Your task to perform on an android device: Open the calendar app, open the side menu, and click the "Day" option Image 0: 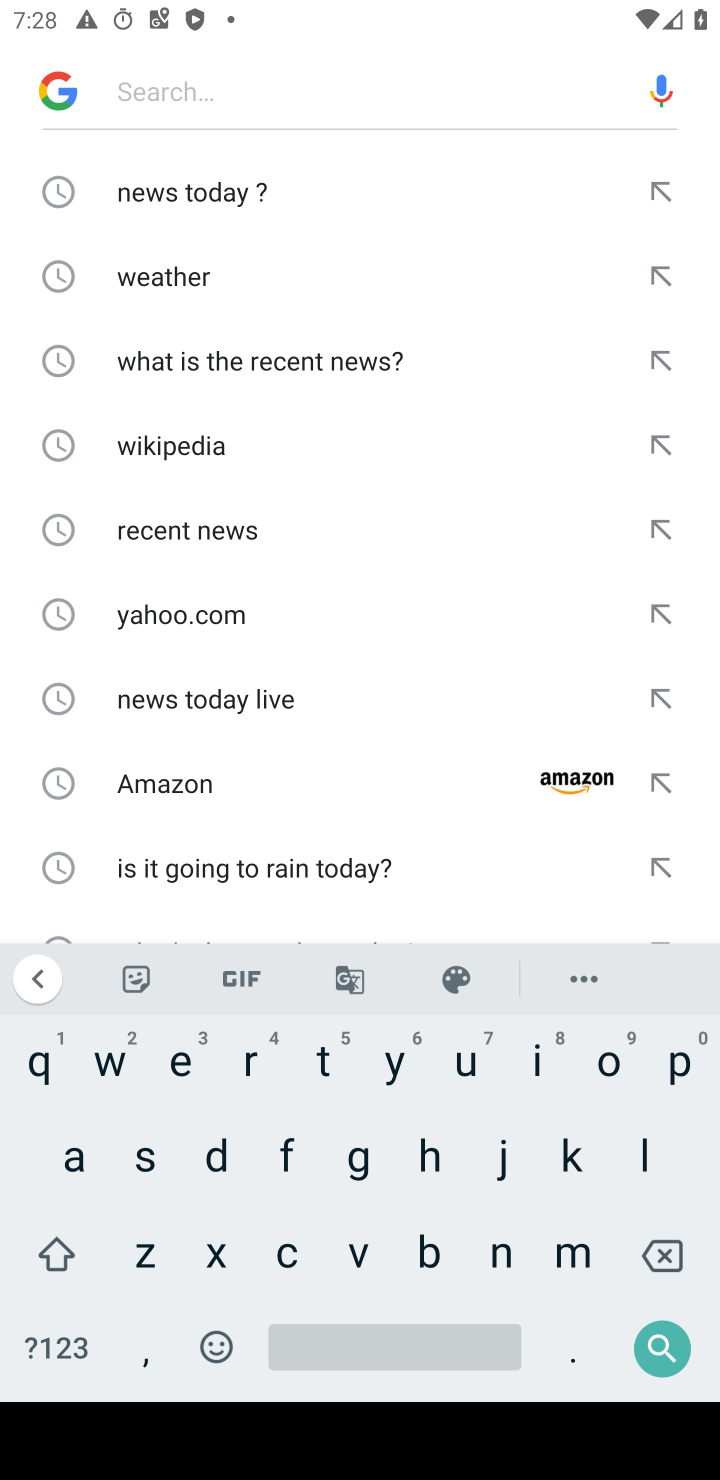
Step 0: press home button
Your task to perform on an android device: Open the calendar app, open the side menu, and click the "Day" option Image 1: 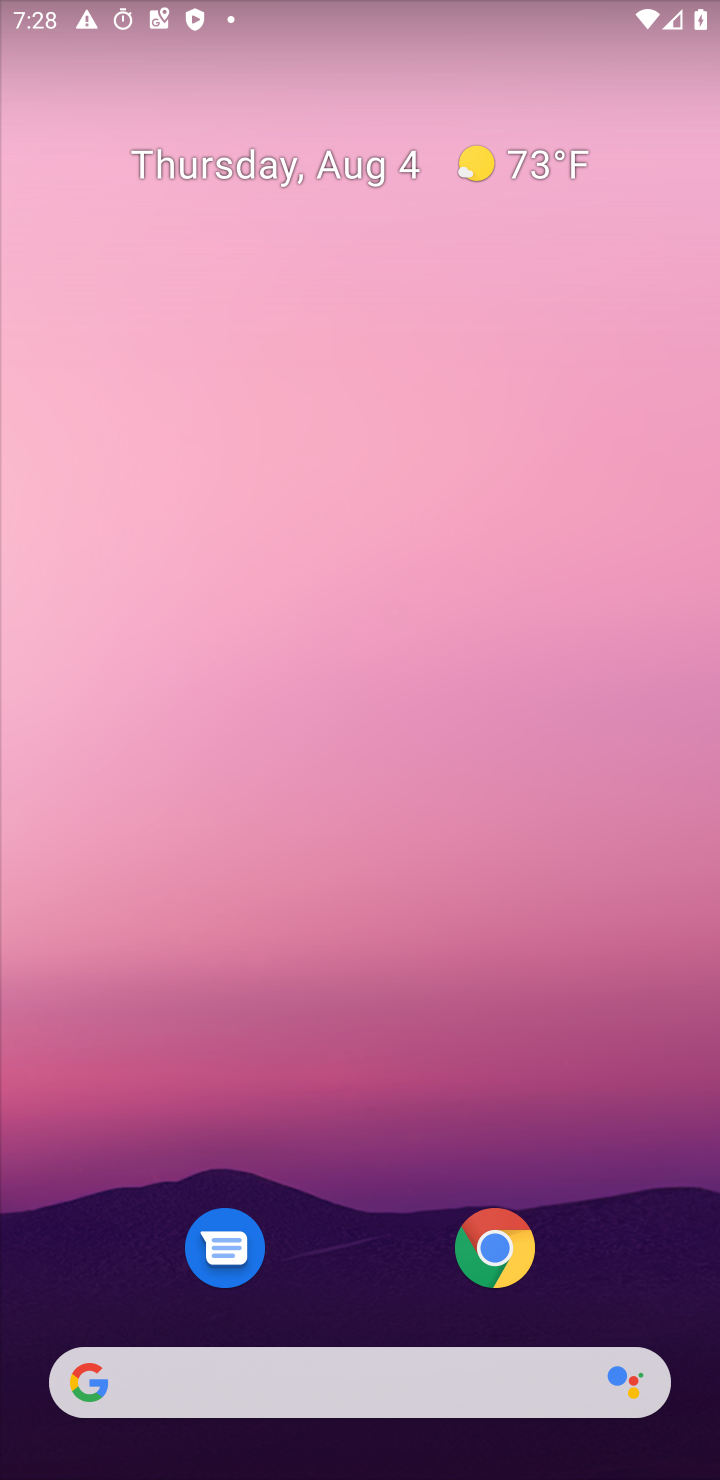
Step 1: drag from (332, 1084) to (334, 351)
Your task to perform on an android device: Open the calendar app, open the side menu, and click the "Day" option Image 2: 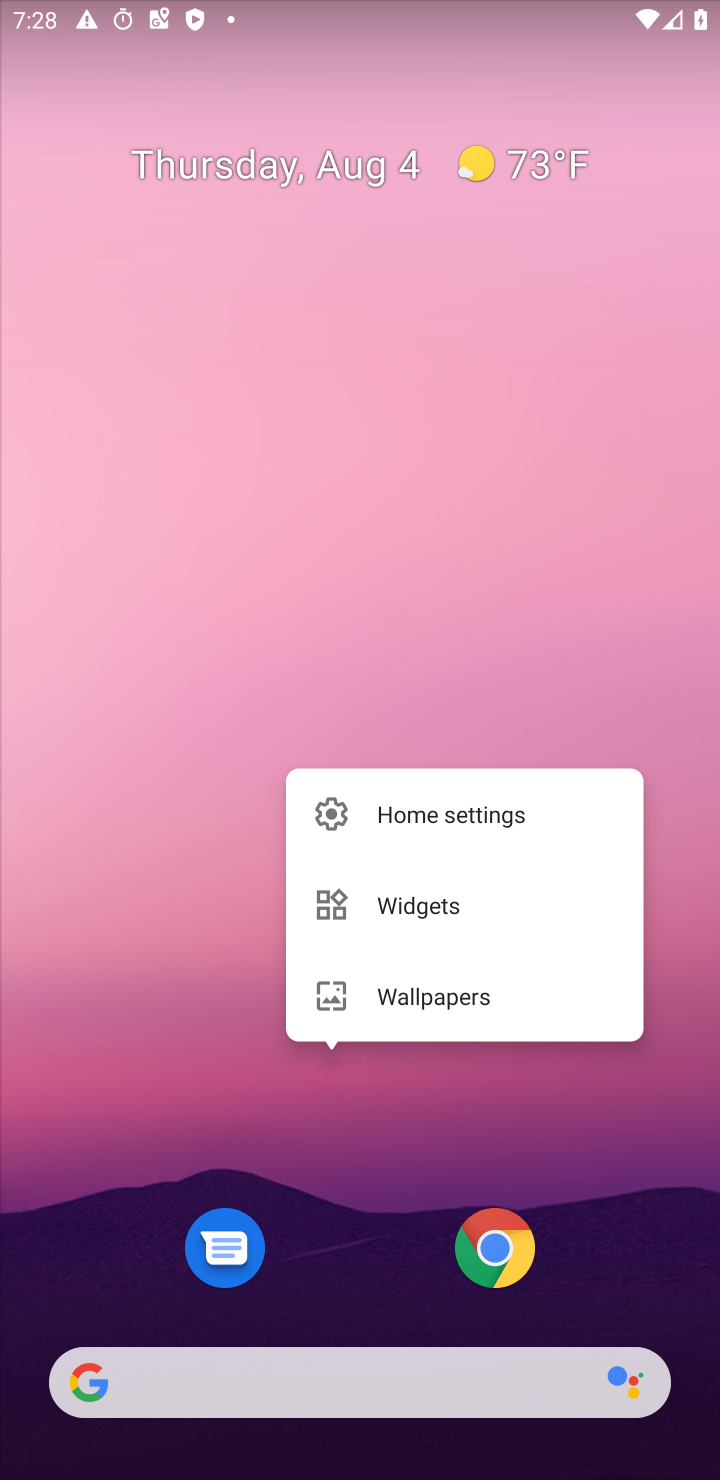
Step 2: click (348, 356)
Your task to perform on an android device: Open the calendar app, open the side menu, and click the "Day" option Image 3: 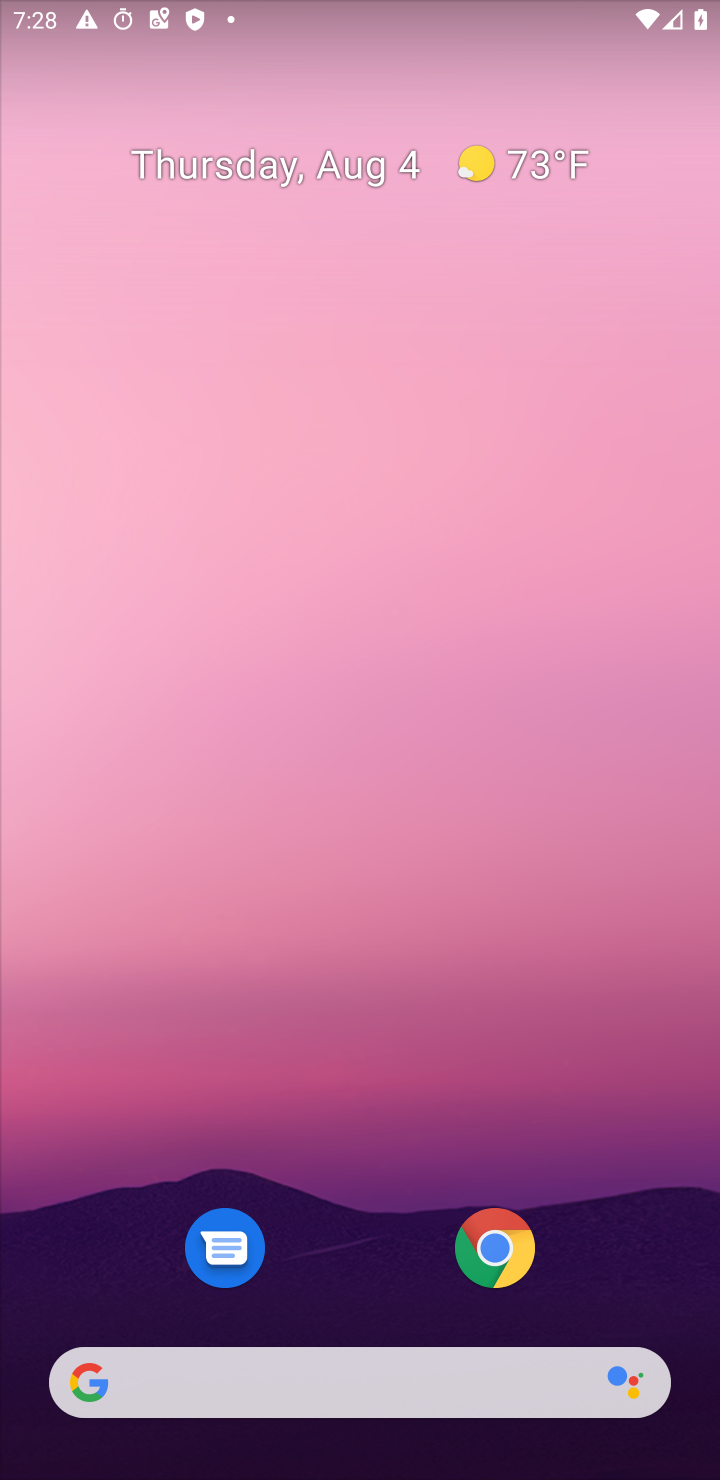
Step 3: drag from (401, 1379) to (315, 330)
Your task to perform on an android device: Open the calendar app, open the side menu, and click the "Day" option Image 4: 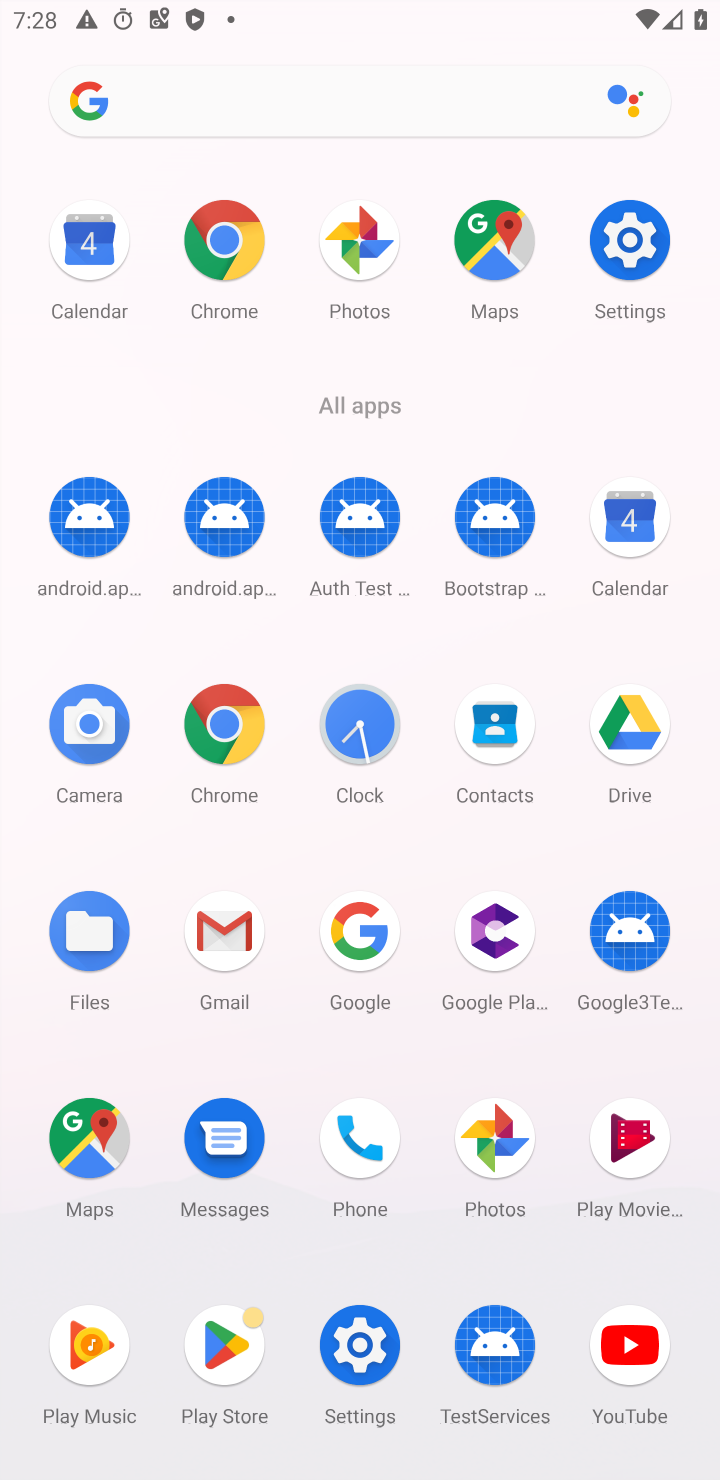
Step 4: click (622, 542)
Your task to perform on an android device: Open the calendar app, open the side menu, and click the "Day" option Image 5: 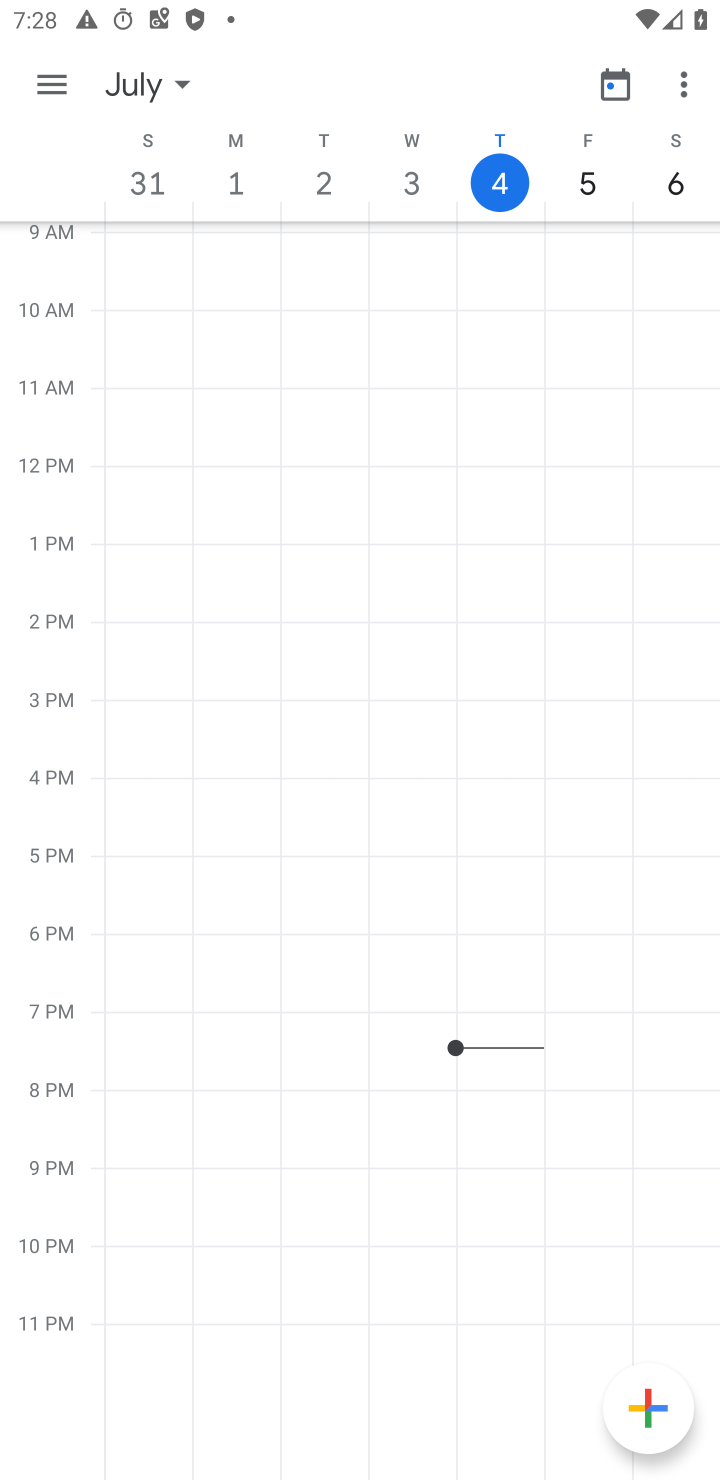
Step 5: click (53, 74)
Your task to perform on an android device: Open the calendar app, open the side menu, and click the "Day" option Image 6: 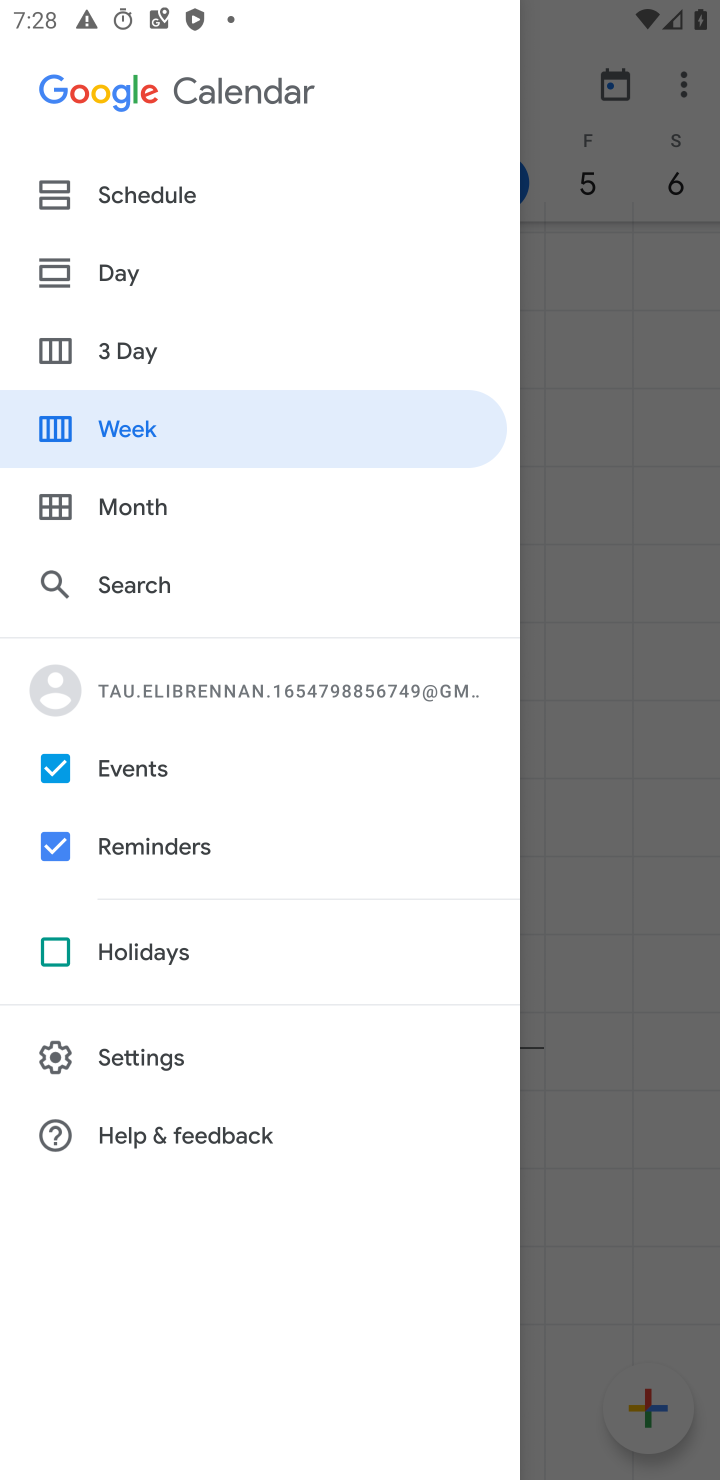
Step 6: click (145, 268)
Your task to perform on an android device: Open the calendar app, open the side menu, and click the "Day" option Image 7: 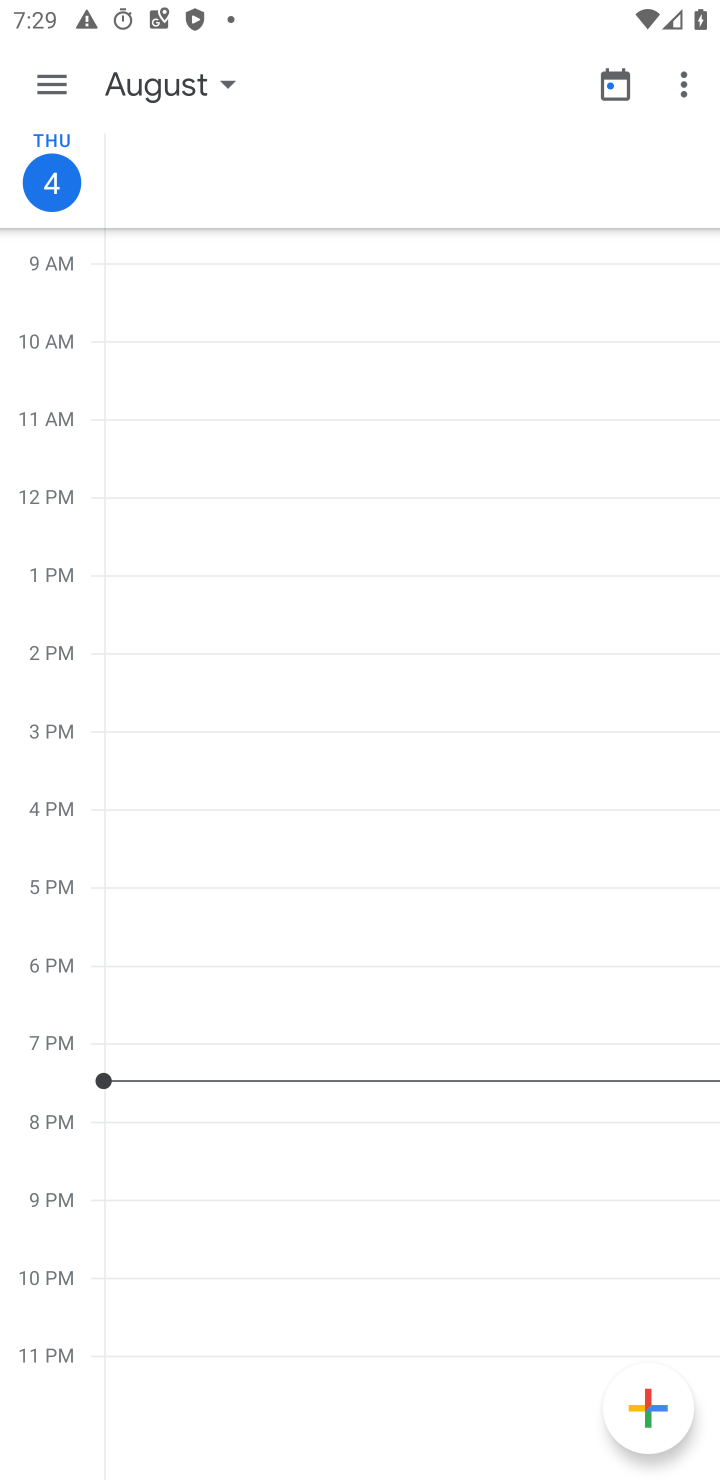
Step 7: click (55, 187)
Your task to perform on an android device: Open the calendar app, open the side menu, and click the "Day" option Image 8: 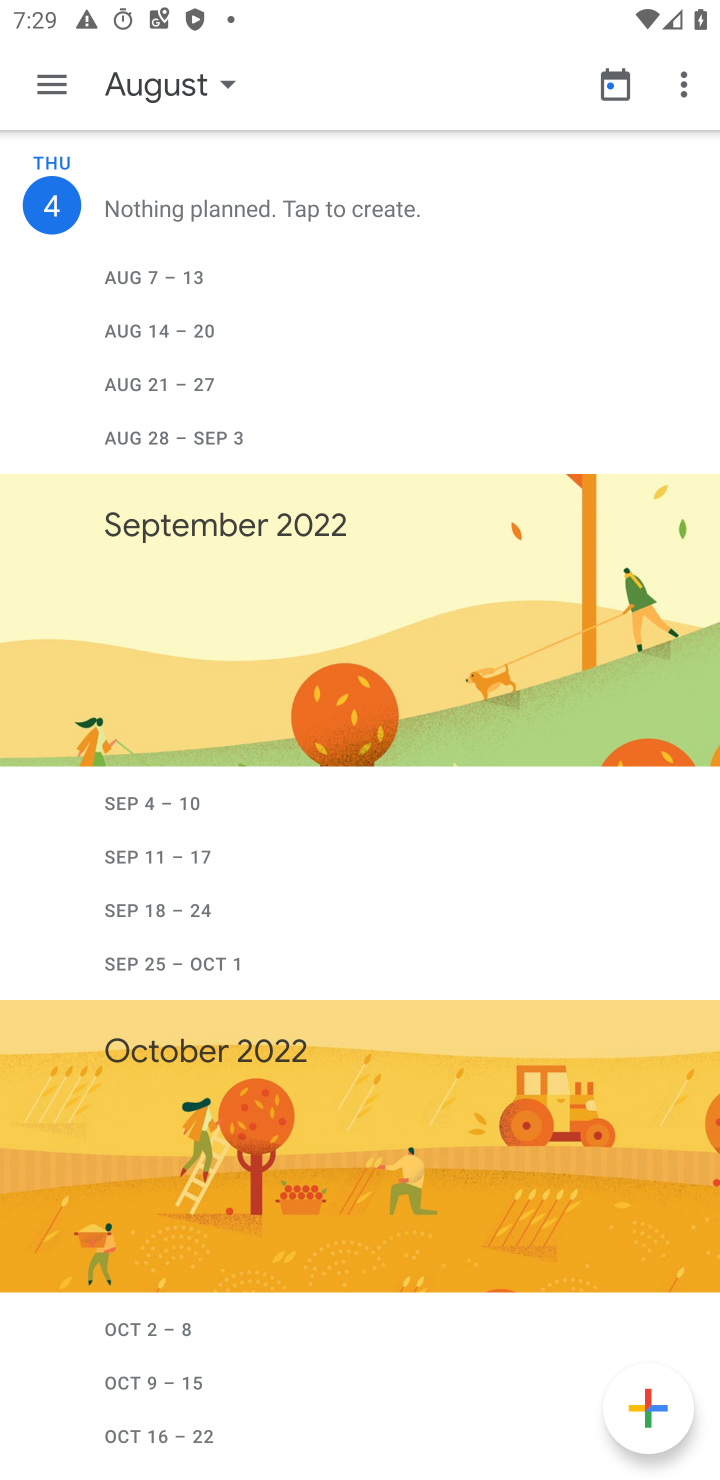
Step 8: task complete